Your task to perform on an android device: open app "Truecaller" Image 0: 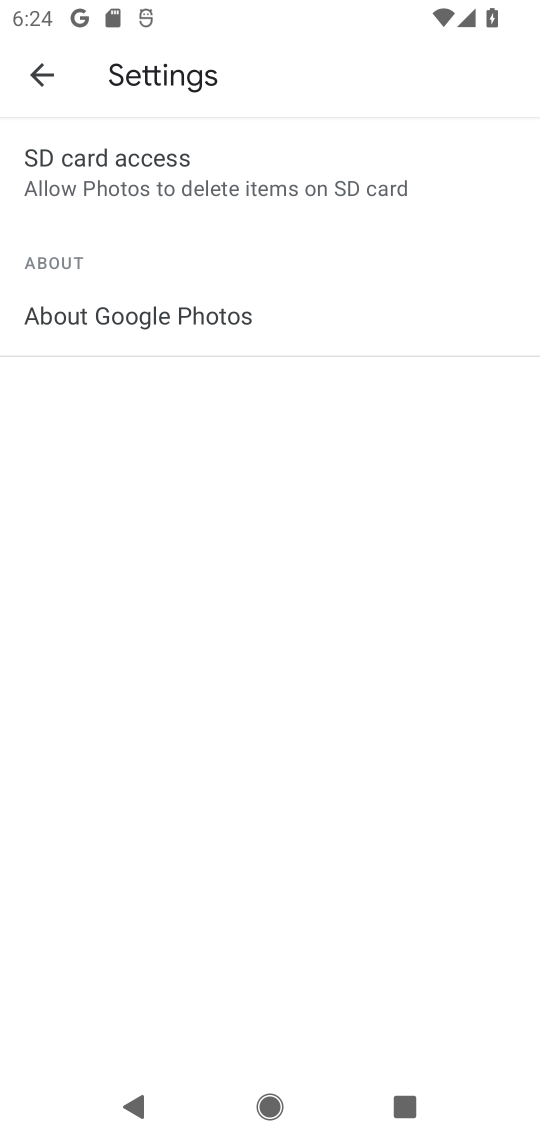
Step 0: press home button
Your task to perform on an android device: open app "Truecaller" Image 1: 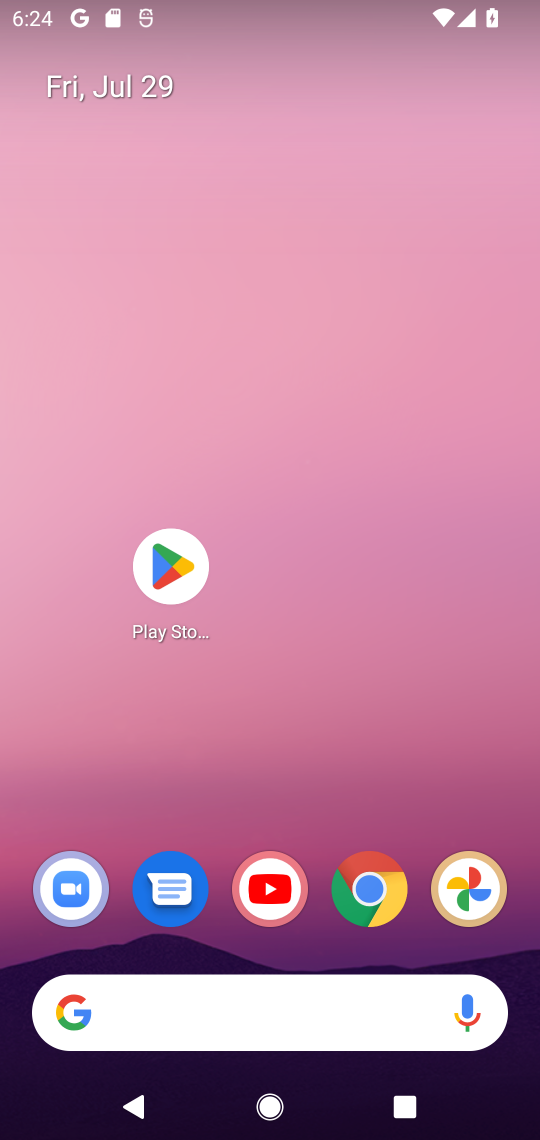
Step 1: click (174, 549)
Your task to perform on an android device: open app "Truecaller" Image 2: 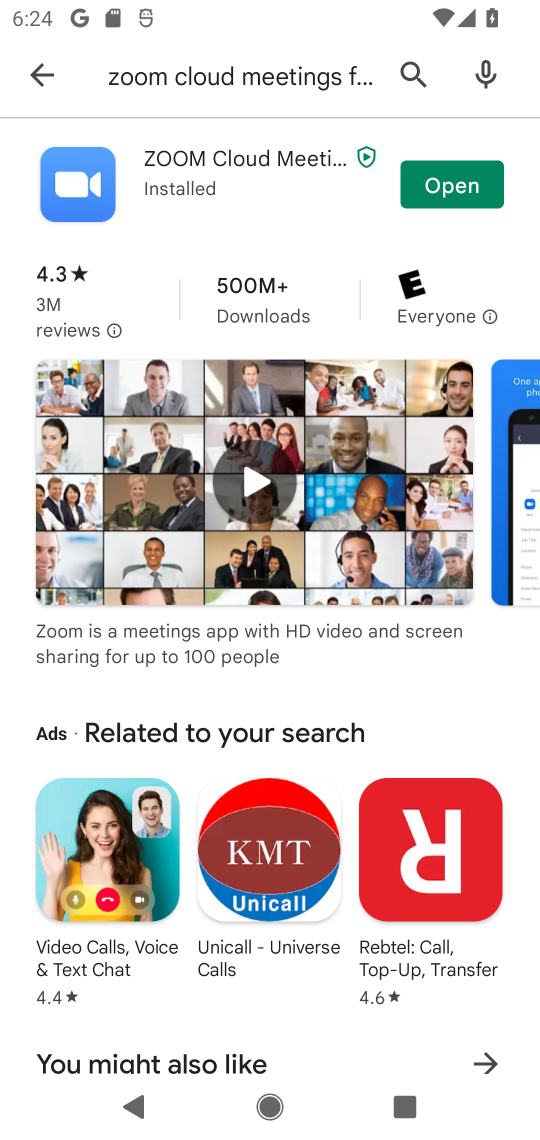
Step 2: click (404, 67)
Your task to perform on an android device: open app "Truecaller" Image 3: 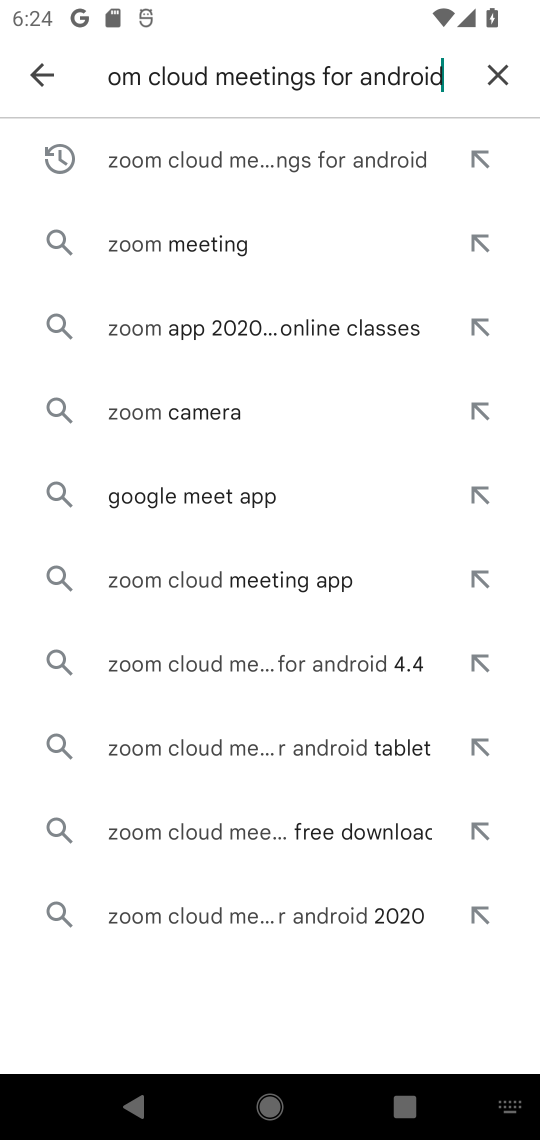
Step 3: click (493, 73)
Your task to perform on an android device: open app "Truecaller" Image 4: 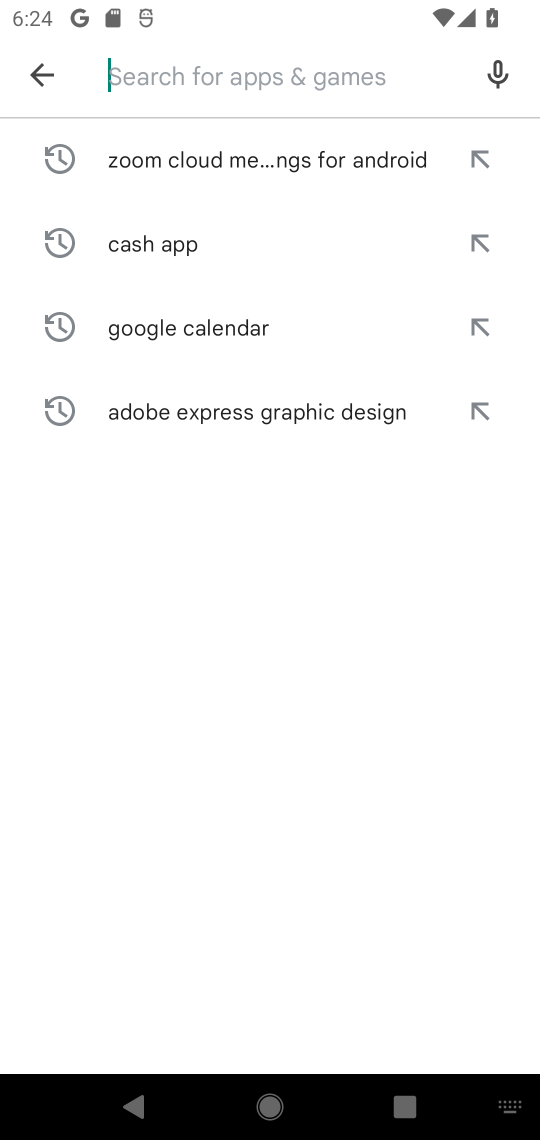
Step 4: type "Truecaller"
Your task to perform on an android device: open app "Truecaller" Image 5: 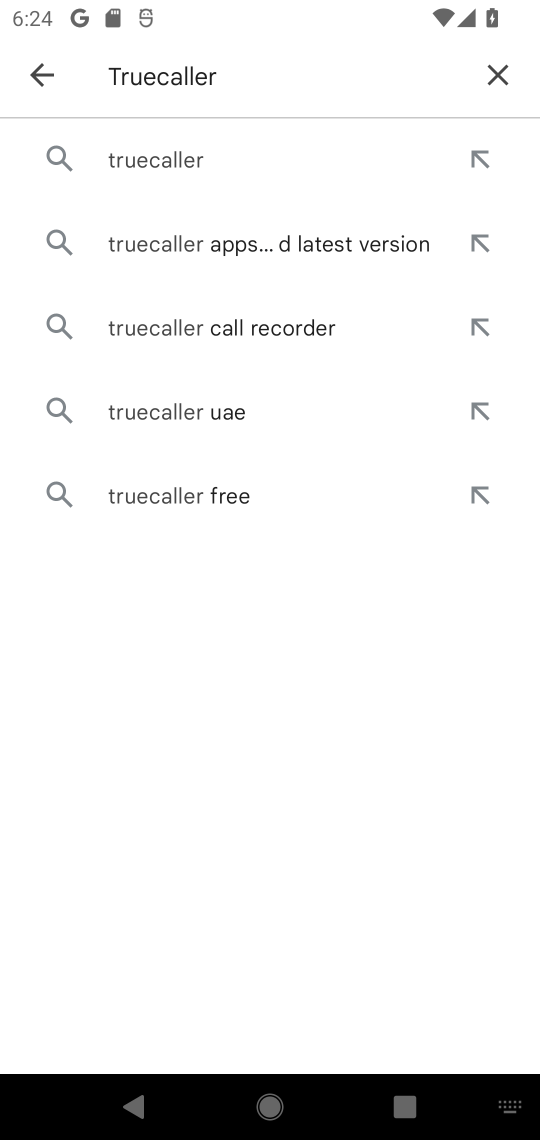
Step 5: click (158, 155)
Your task to perform on an android device: open app "Truecaller" Image 6: 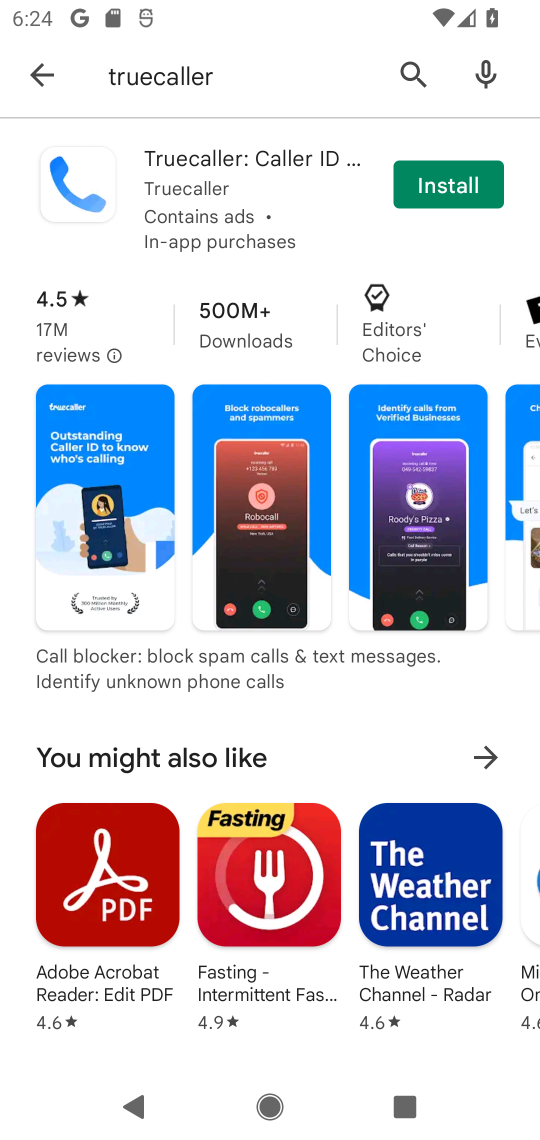
Step 6: task complete